Your task to perform on an android device: toggle translation in the chrome app Image 0: 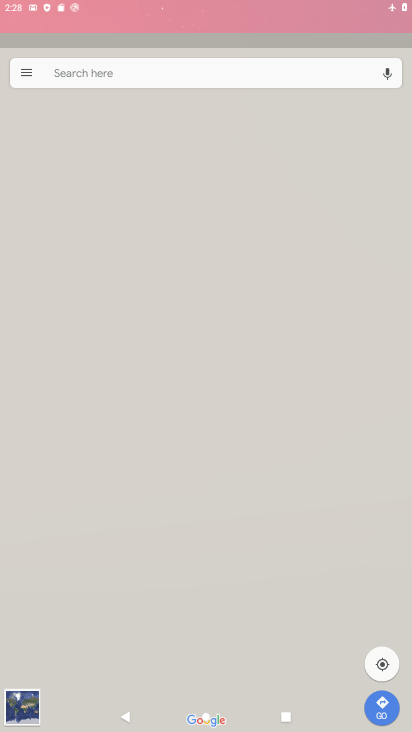
Step 0: press home button
Your task to perform on an android device: toggle translation in the chrome app Image 1: 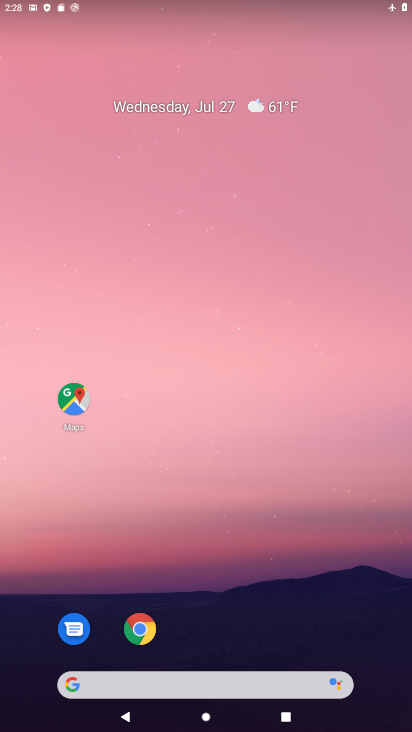
Step 1: click (145, 628)
Your task to perform on an android device: toggle translation in the chrome app Image 2: 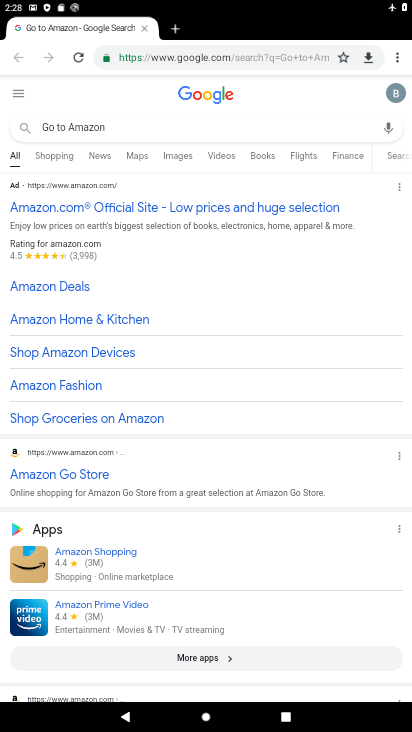
Step 2: click (396, 53)
Your task to perform on an android device: toggle translation in the chrome app Image 3: 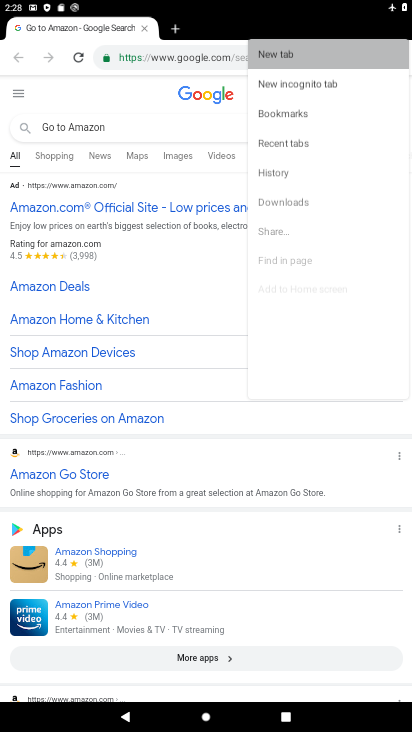
Step 3: click (396, 53)
Your task to perform on an android device: toggle translation in the chrome app Image 4: 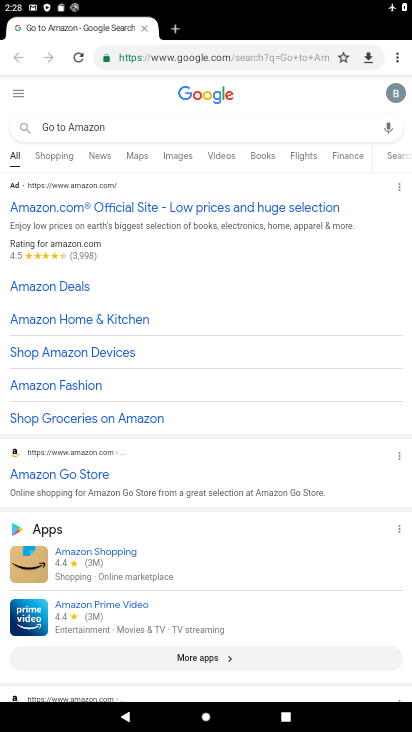
Step 4: click (396, 53)
Your task to perform on an android device: toggle translation in the chrome app Image 5: 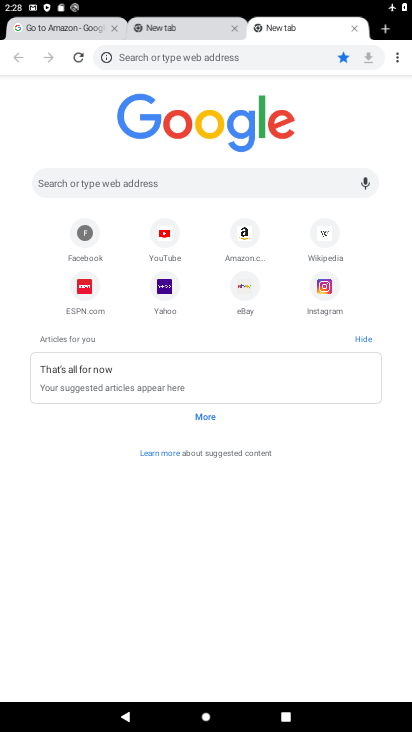
Step 5: drag from (394, 61) to (287, 266)
Your task to perform on an android device: toggle translation in the chrome app Image 6: 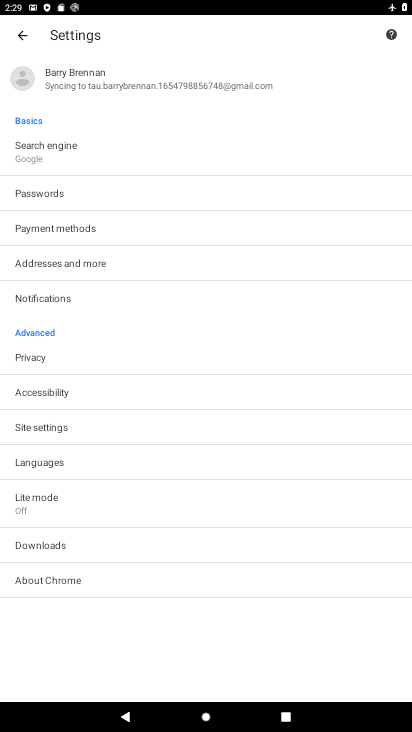
Step 6: click (61, 427)
Your task to perform on an android device: toggle translation in the chrome app Image 7: 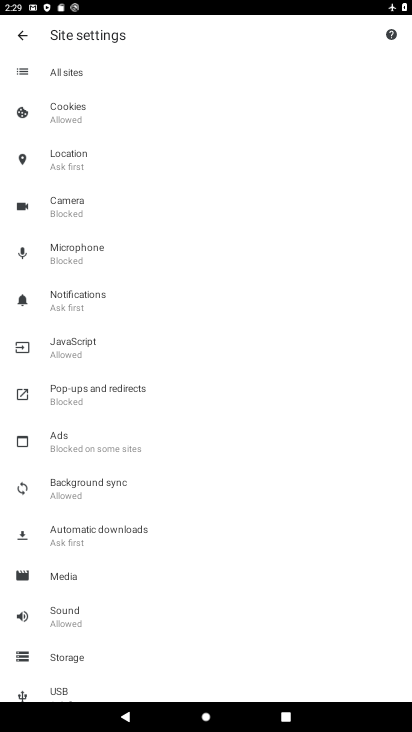
Step 7: click (33, 34)
Your task to perform on an android device: toggle translation in the chrome app Image 8: 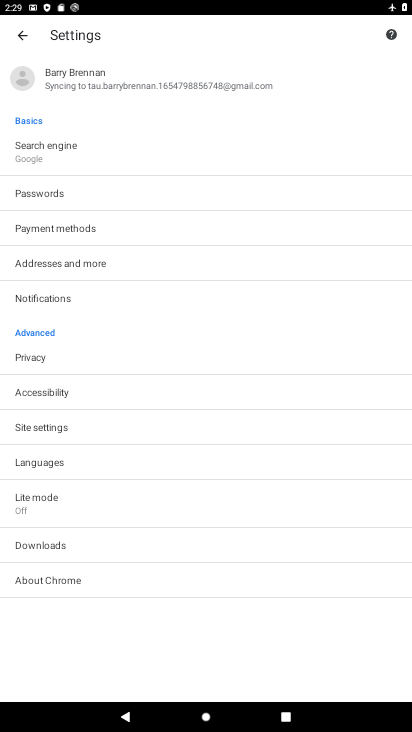
Step 8: click (64, 458)
Your task to perform on an android device: toggle translation in the chrome app Image 9: 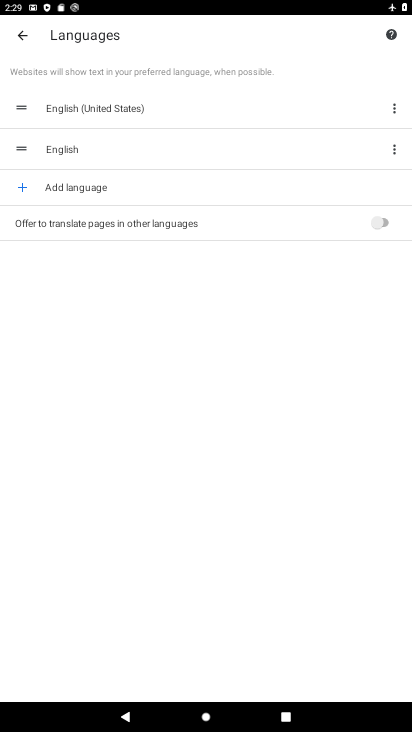
Step 9: click (352, 224)
Your task to perform on an android device: toggle translation in the chrome app Image 10: 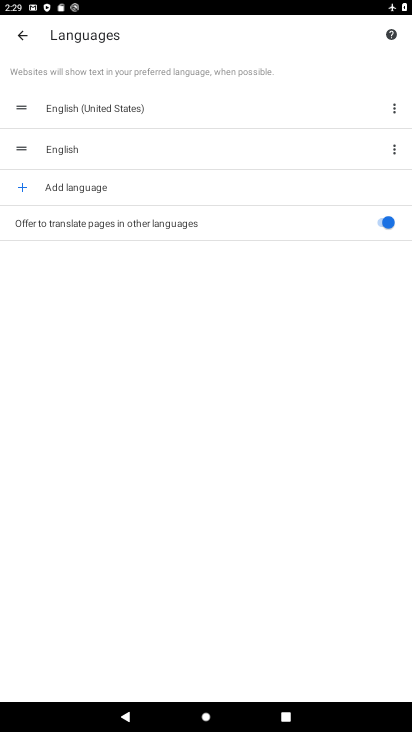
Step 10: task complete